Your task to perform on an android device: turn off notifications settings in the gmail app Image 0: 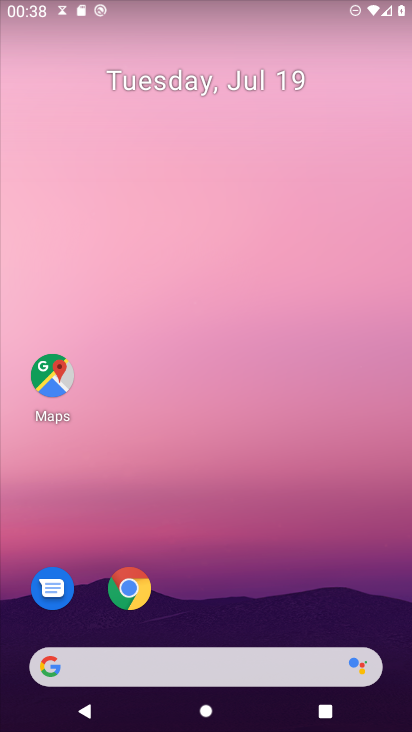
Step 0: press home button
Your task to perform on an android device: turn off notifications settings in the gmail app Image 1: 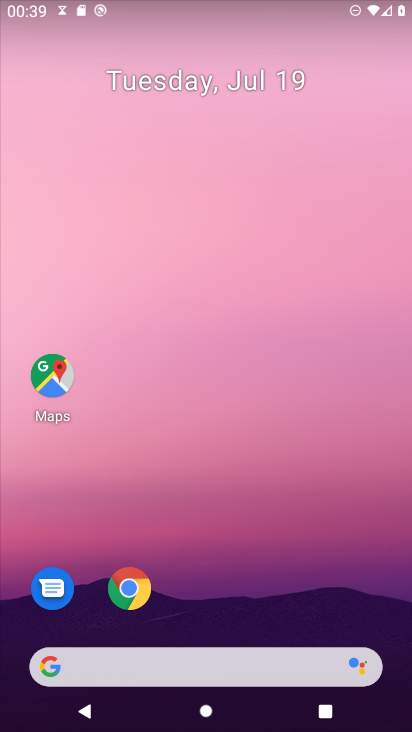
Step 1: press home button
Your task to perform on an android device: turn off notifications settings in the gmail app Image 2: 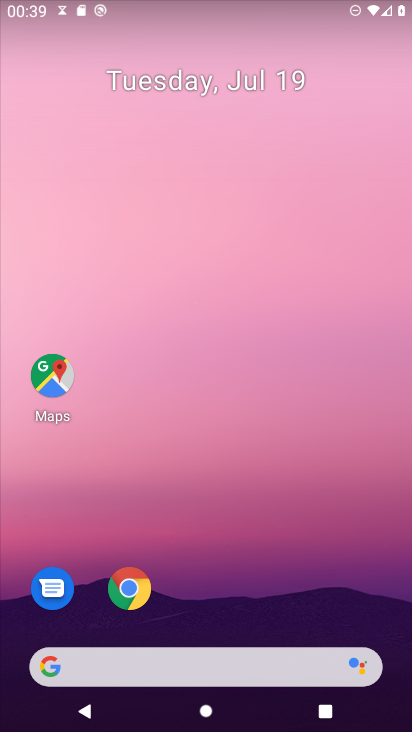
Step 2: drag from (285, 572) to (281, 2)
Your task to perform on an android device: turn off notifications settings in the gmail app Image 3: 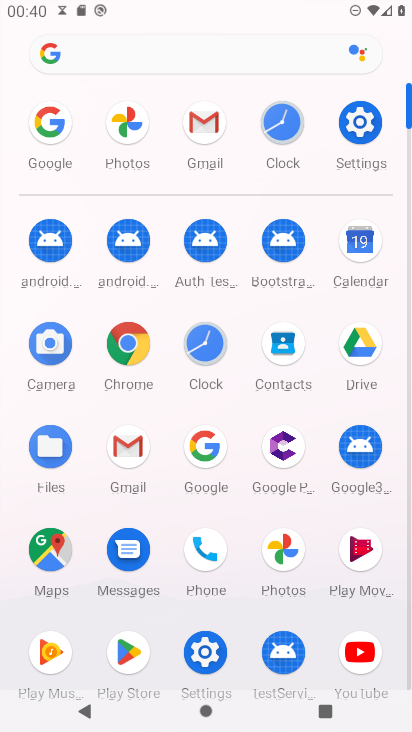
Step 3: click (210, 129)
Your task to perform on an android device: turn off notifications settings in the gmail app Image 4: 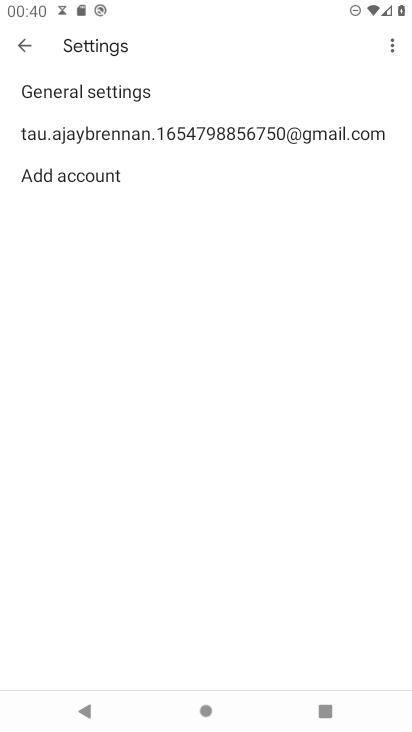
Step 4: click (27, 39)
Your task to perform on an android device: turn off notifications settings in the gmail app Image 5: 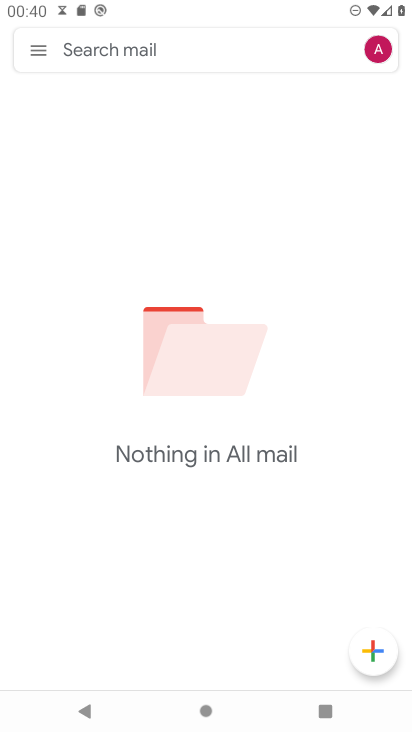
Step 5: click (42, 46)
Your task to perform on an android device: turn off notifications settings in the gmail app Image 6: 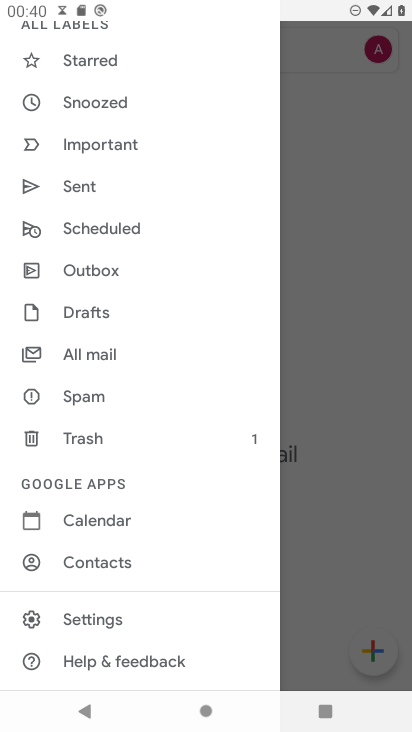
Step 6: drag from (123, 599) to (150, 405)
Your task to perform on an android device: turn off notifications settings in the gmail app Image 7: 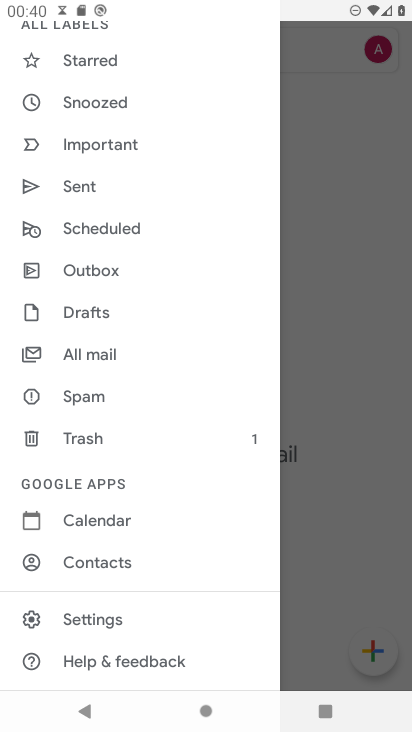
Step 7: click (81, 613)
Your task to perform on an android device: turn off notifications settings in the gmail app Image 8: 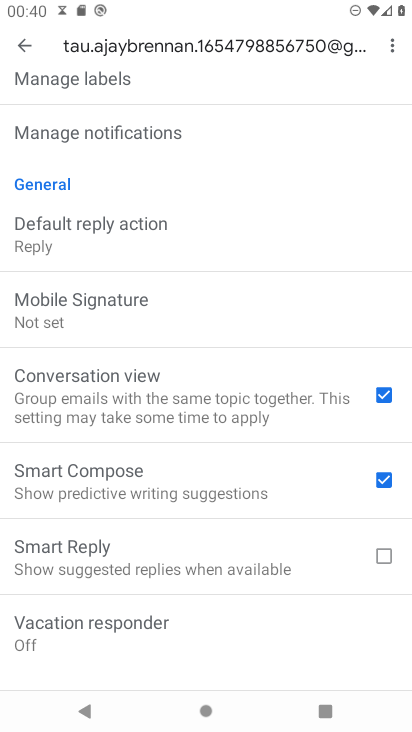
Step 8: click (153, 124)
Your task to perform on an android device: turn off notifications settings in the gmail app Image 9: 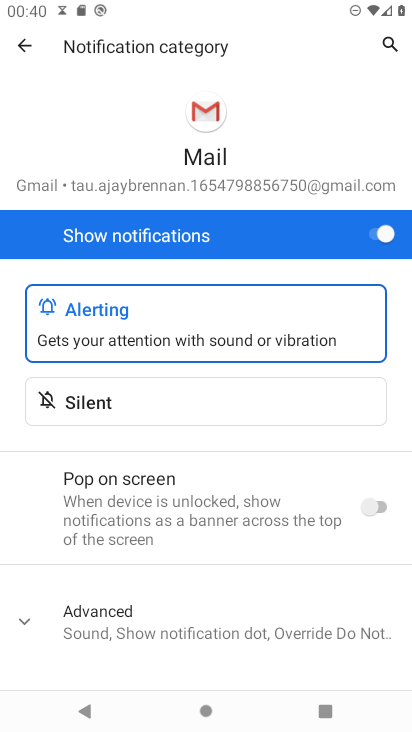
Step 9: click (381, 227)
Your task to perform on an android device: turn off notifications settings in the gmail app Image 10: 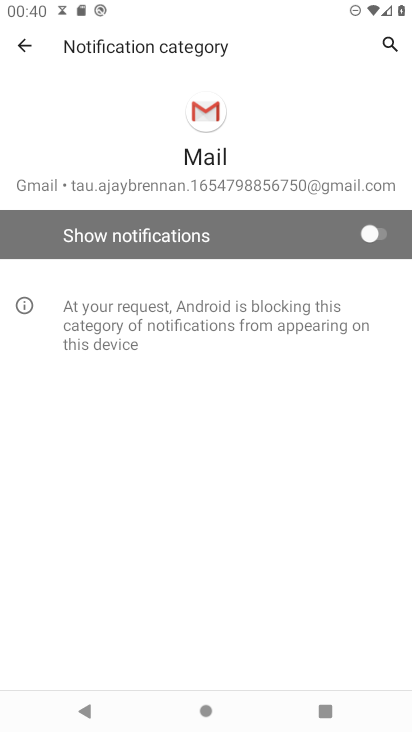
Step 10: task complete